Your task to perform on an android device: see sites visited before in the chrome app Image 0: 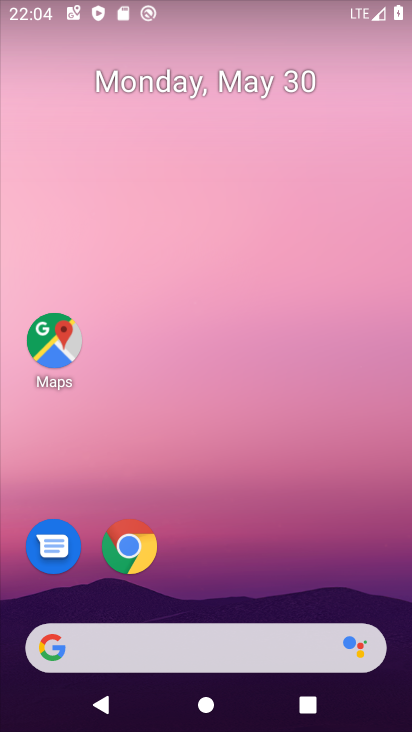
Step 0: drag from (270, 588) to (274, 156)
Your task to perform on an android device: see sites visited before in the chrome app Image 1: 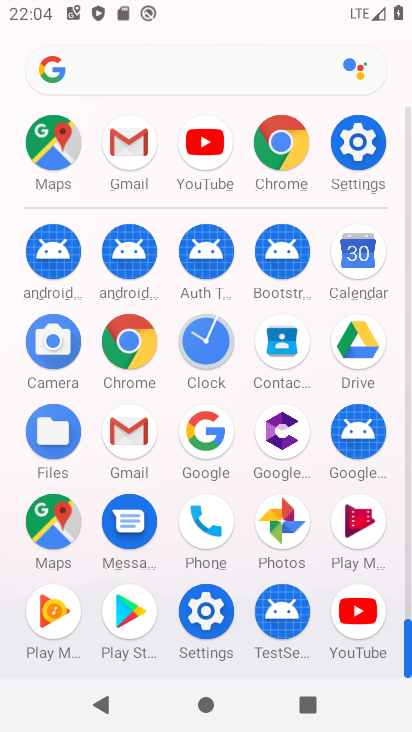
Step 1: click (119, 330)
Your task to perform on an android device: see sites visited before in the chrome app Image 2: 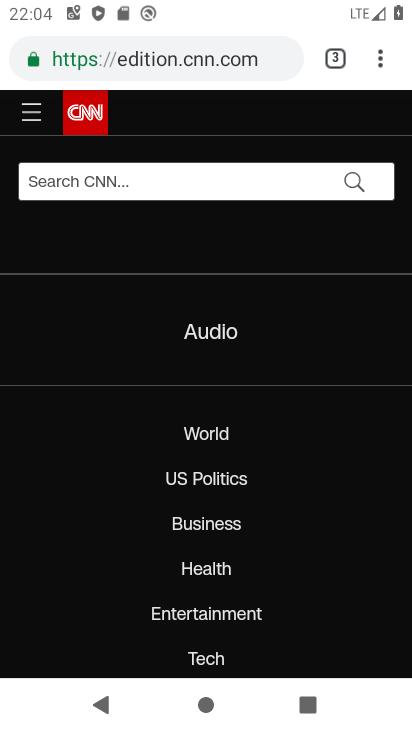
Step 2: click (326, 52)
Your task to perform on an android device: see sites visited before in the chrome app Image 3: 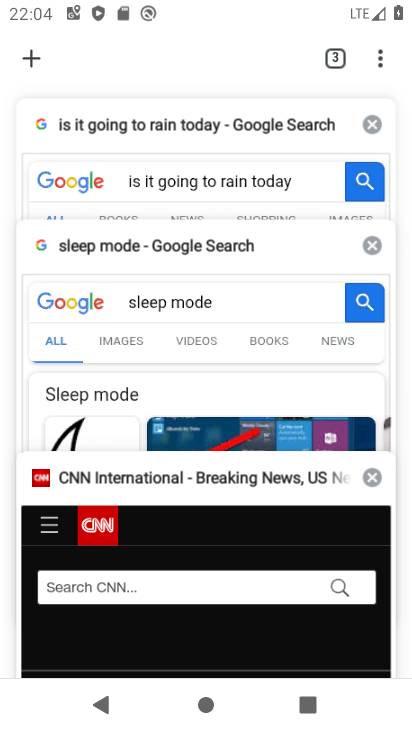
Step 3: click (21, 53)
Your task to perform on an android device: see sites visited before in the chrome app Image 4: 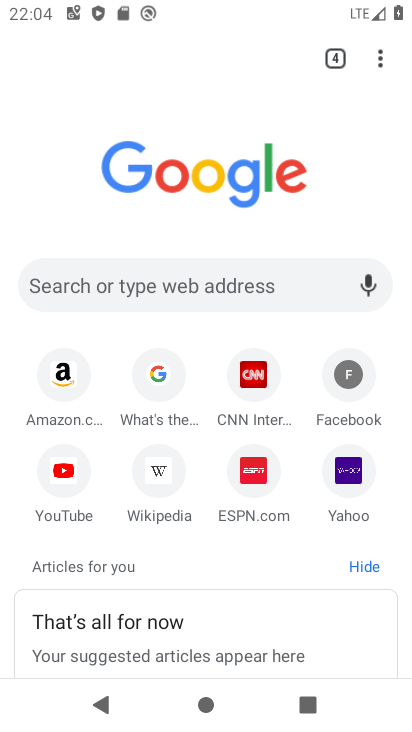
Step 4: task complete